Your task to perform on an android device: Open the calendar app, open the side menu, and click the "Day" option Image 0: 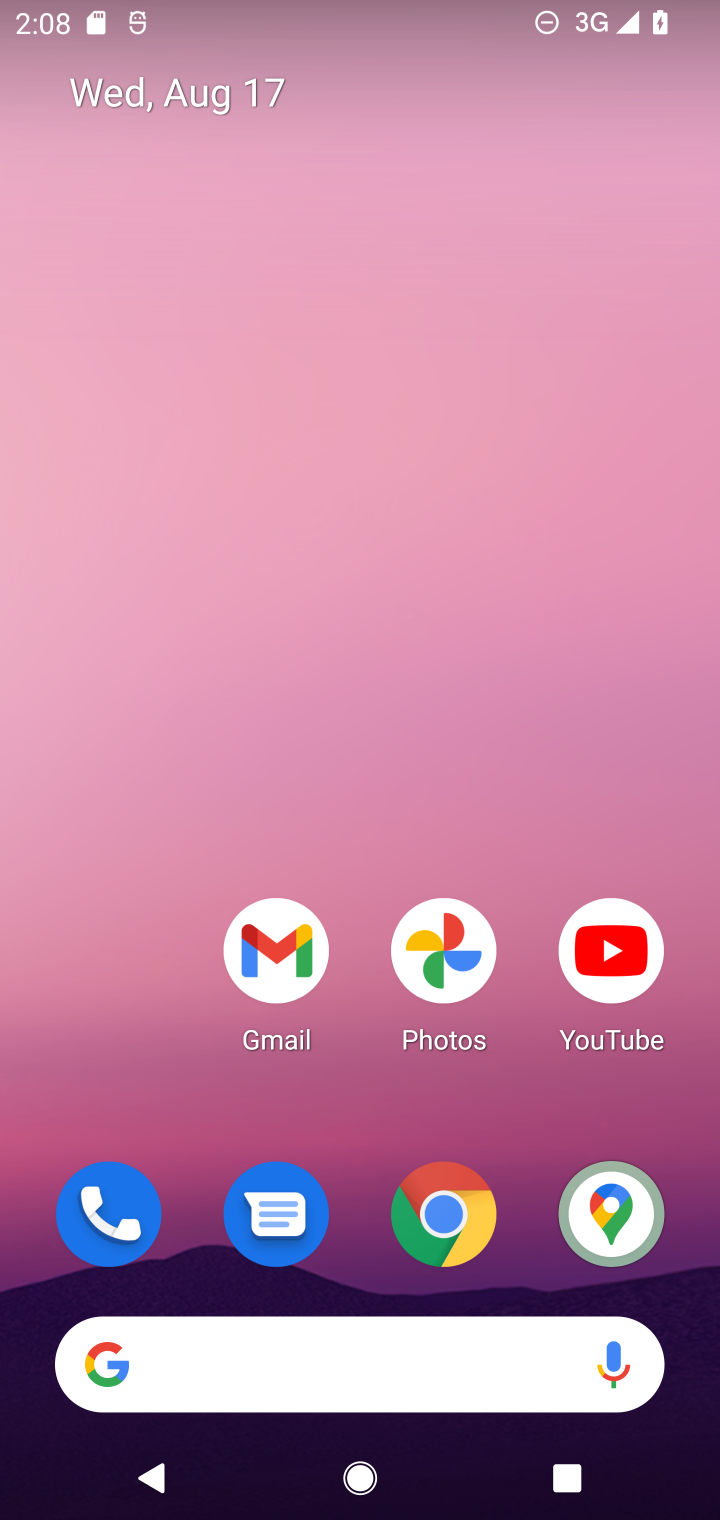
Step 0: drag from (366, 1288) to (265, 119)
Your task to perform on an android device: Open the calendar app, open the side menu, and click the "Day" option Image 1: 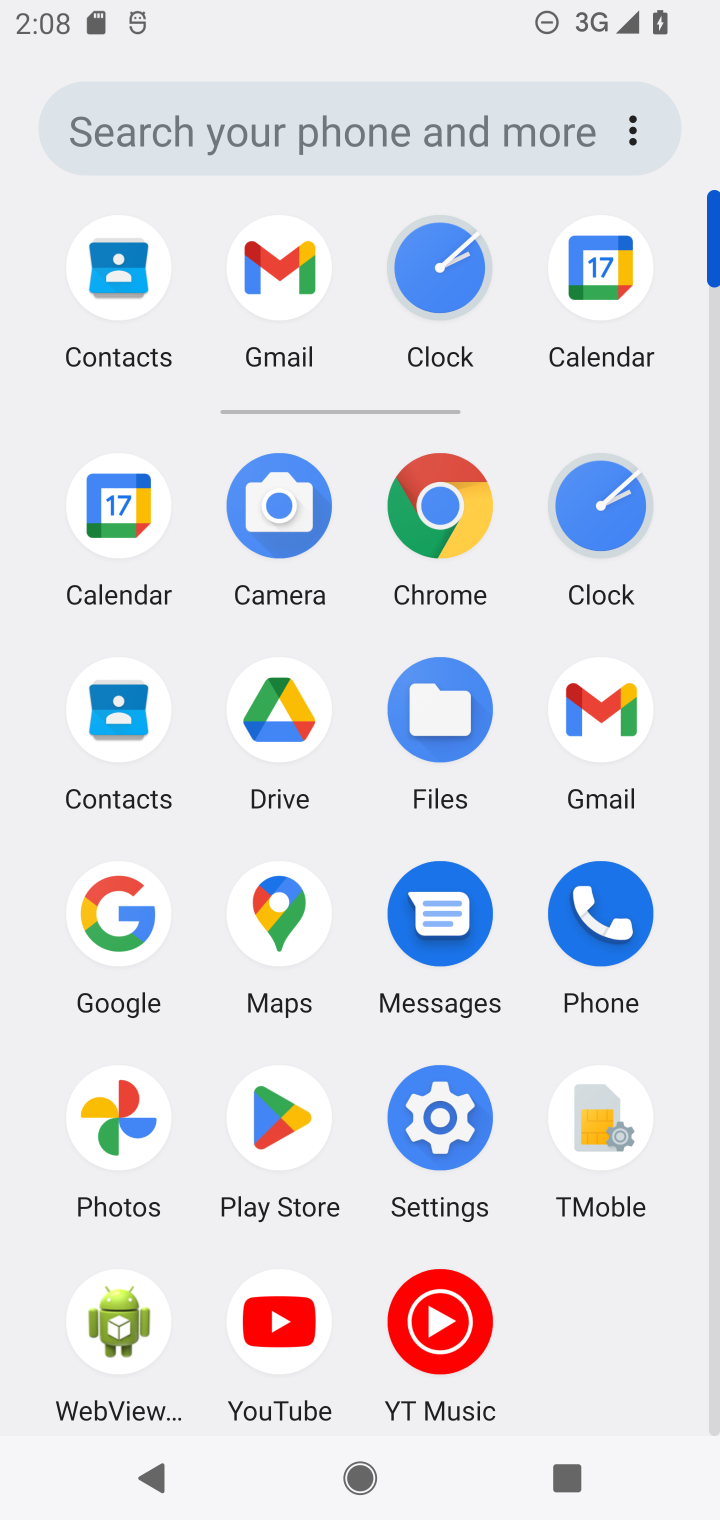
Step 1: click (117, 507)
Your task to perform on an android device: Open the calendar app, open the side menu, and click the "Day" option Image 2: 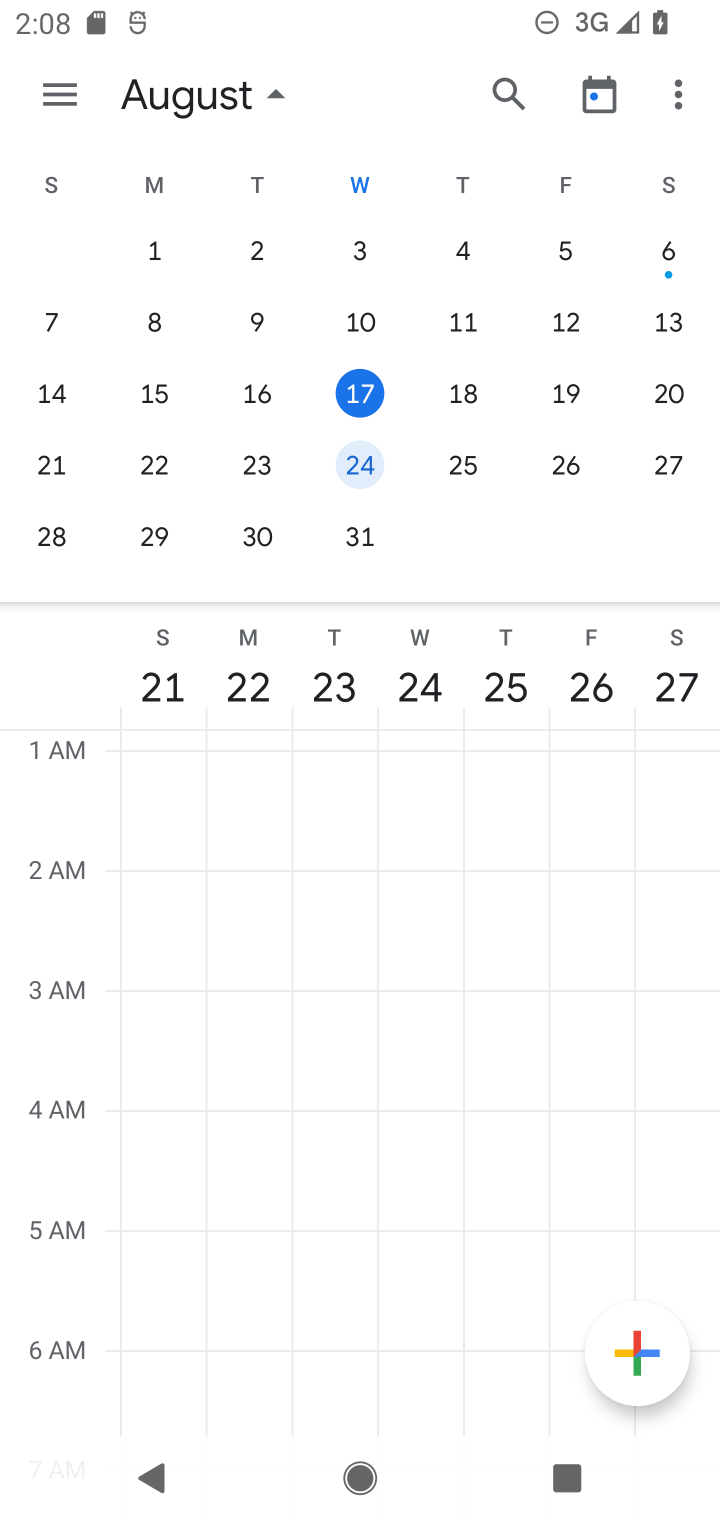
Step 2: click (62, 82)
Your task to perform on an android device: Open the calendar app, open the side menu, and click the "Day" option Image 3: 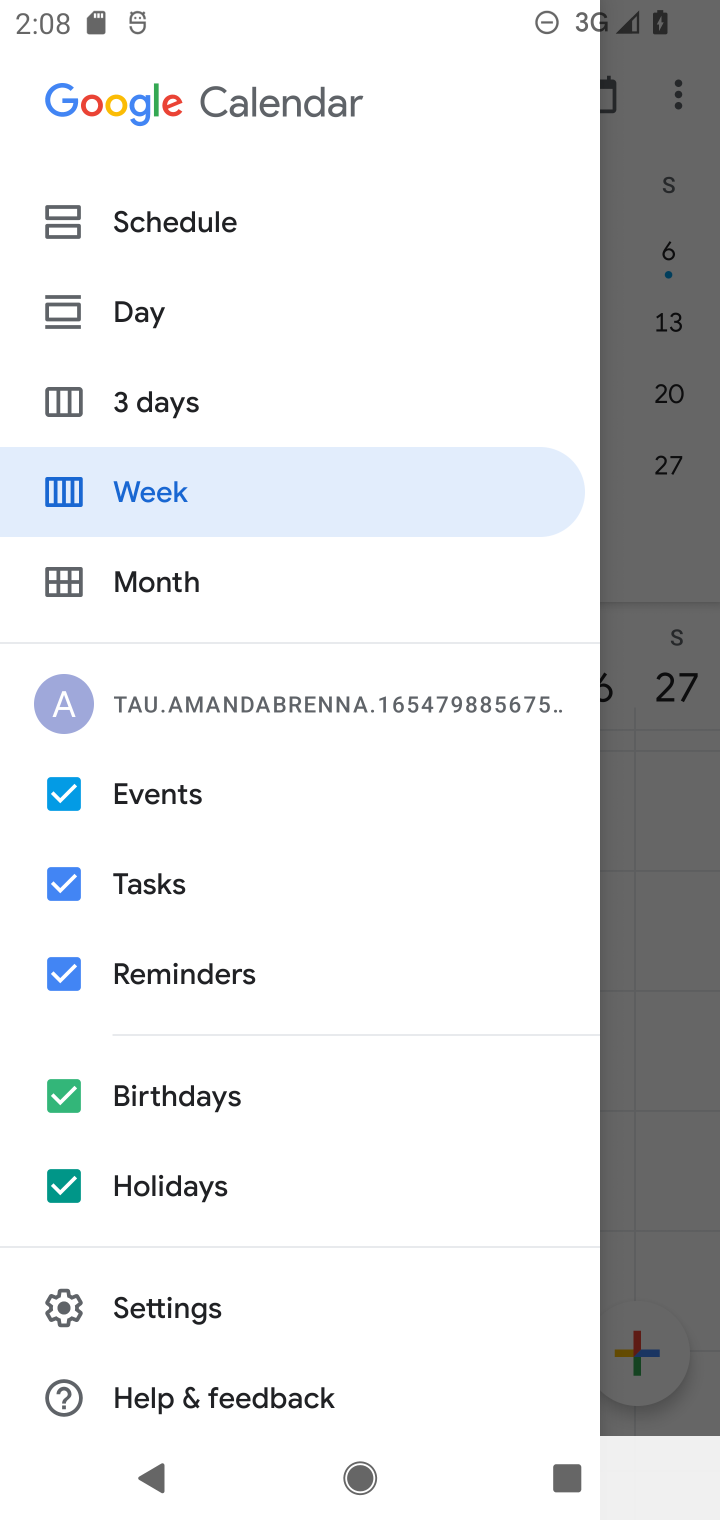
Step 3: click (131, 313)
Your task to perform on an android device: Open the calendar app, open the side menu, and click the "Day" option Image 4: 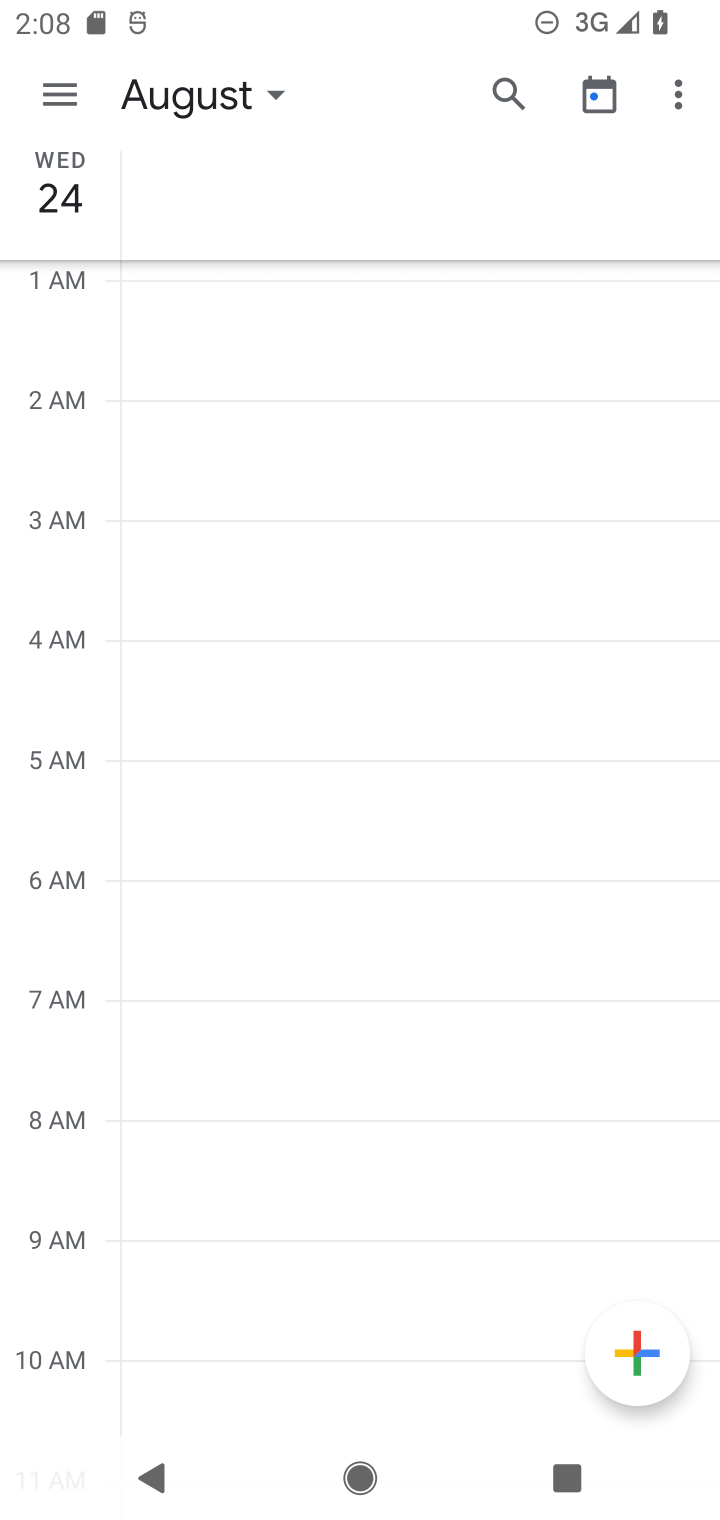
Step 4: task complete